Your task to perform on an android device: Open settings on Google Maps Image 0: 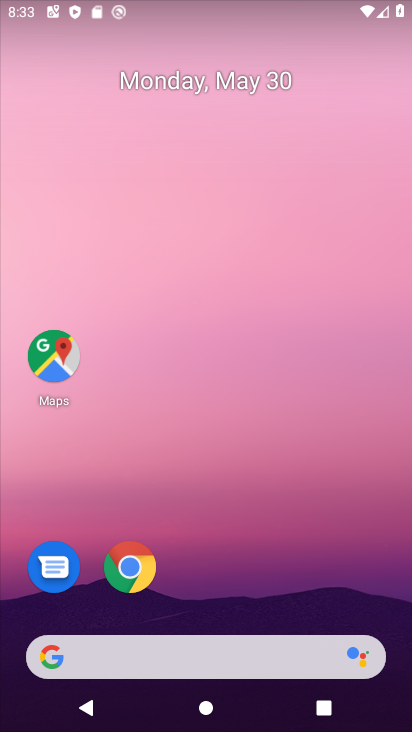
Step 0: click (57, 357)
Your task to perform on an android device: Open settings on Google Maps Image 1: 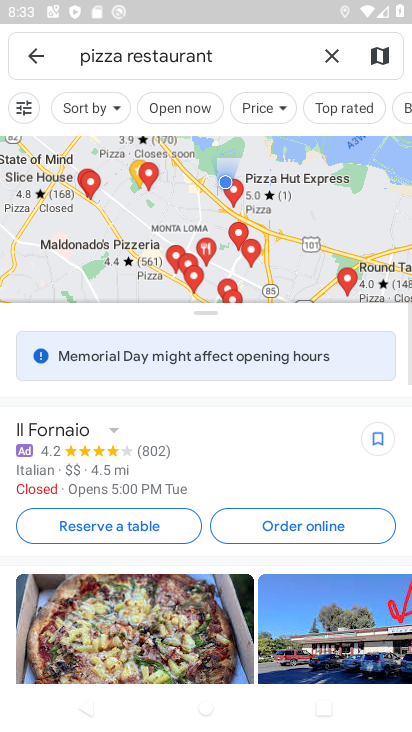
Step 1: click (41, 59)
Your task to perform on an android device: Open settings on Google Maps Image 2: 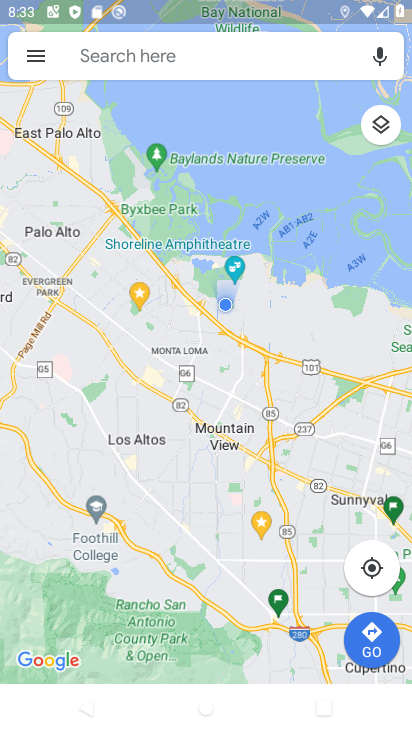
Step 2: click (41, 59)
Your task to perform on an android device: Open settings on Google Maps Image 3: 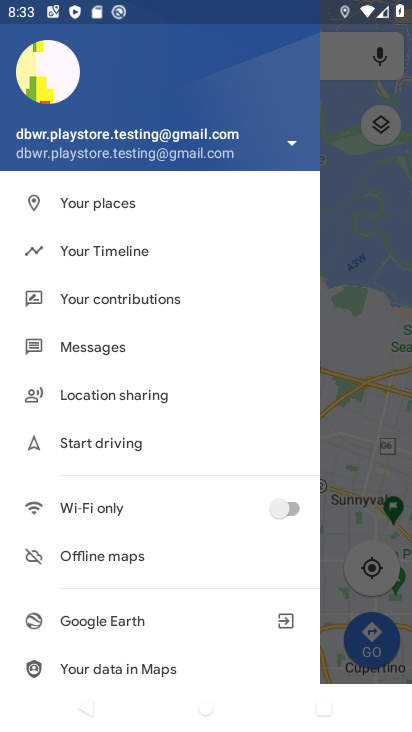
Step 3: drag from (127, 649) to (195, 189)
Your task to perform on an android device: Open settings on Google Maps Image 4: 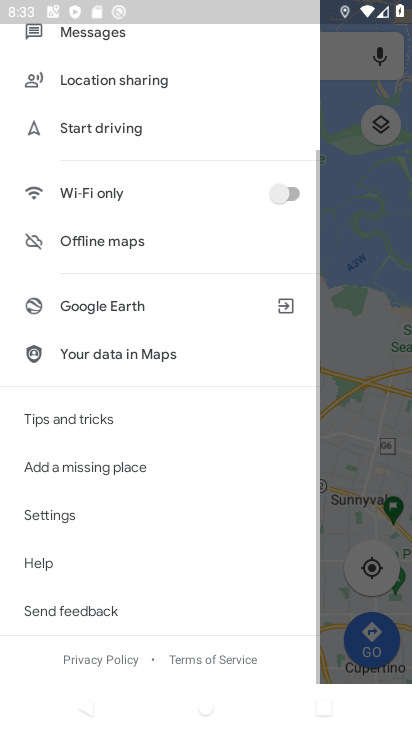
Step 4: click (81, 511)
Your task to perform on an android device: Open settings on Google Maps Image 5: 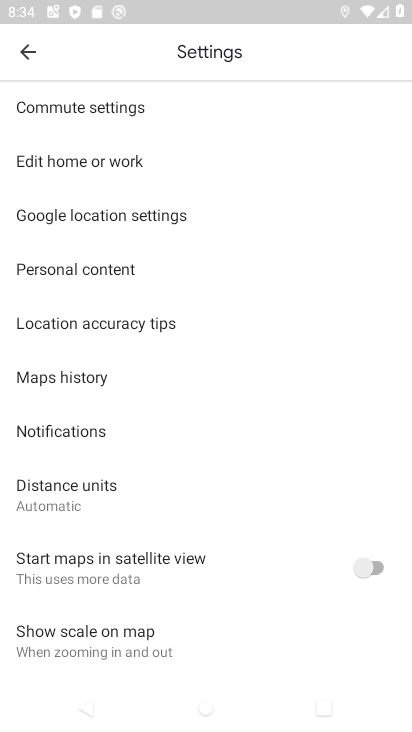
Step 5: task complete